Your task to perform on an android device: Open Google Maps and go to "Timeline" Image 0: 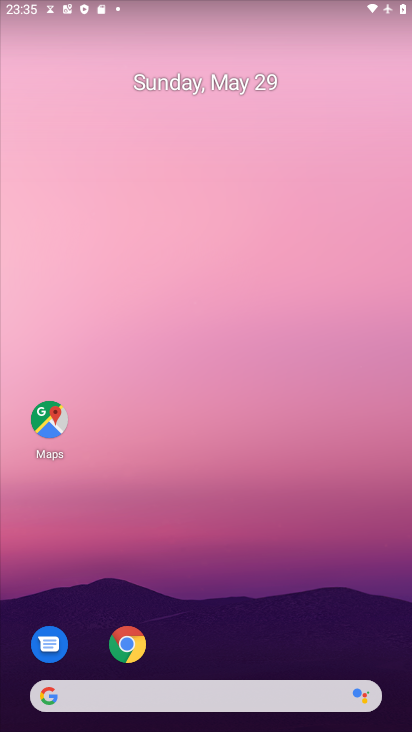
Step 0: drag from (227, 620) to (250, 300)
Your task to perform on an android device: Open Google Maps and go to "Timeline" Image 1: 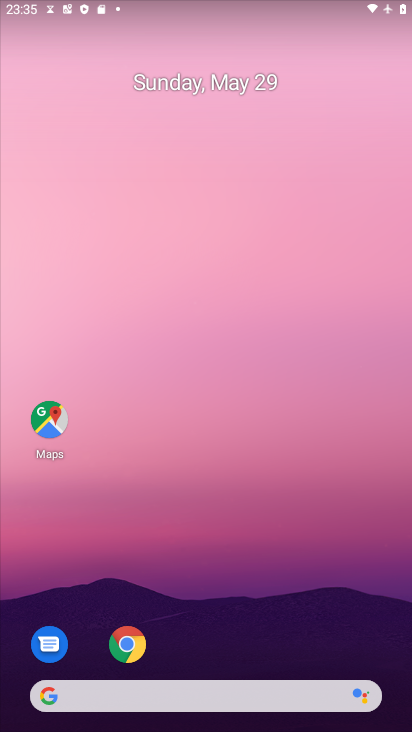
Step 1: click (122, 644)
Your task to perform on an android device: Open Google Maps and go to "Timeline" Image 2: 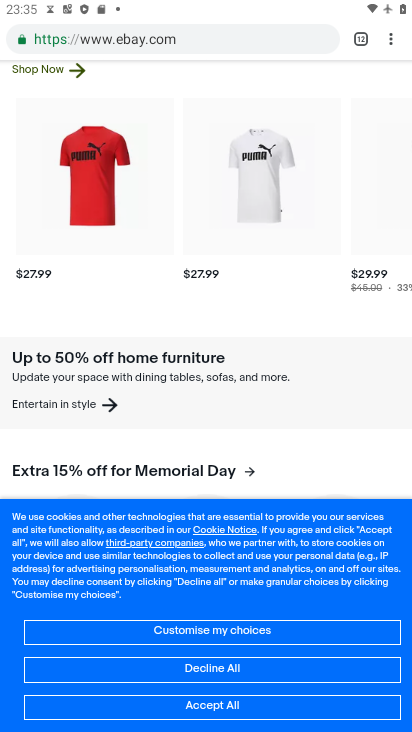
Step 2: click (386, 40)
Your task to perform on an android device: Open Google Maps and go to "Timeline" Image 3: 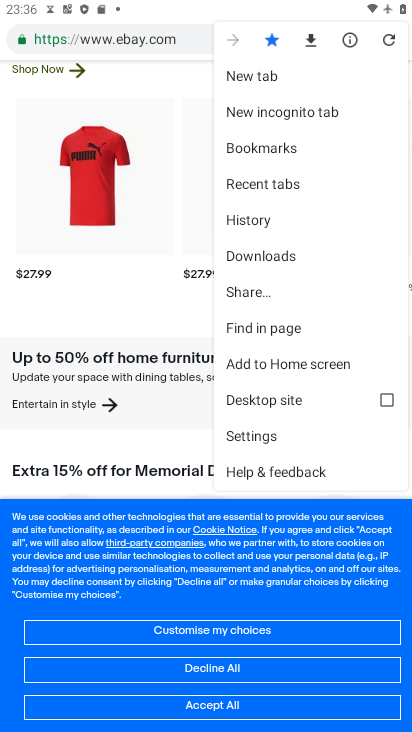
Step 3: click (178, 169)
Your task to perform on an android device: Open Google Maps and go to "Timeline" Image 4: 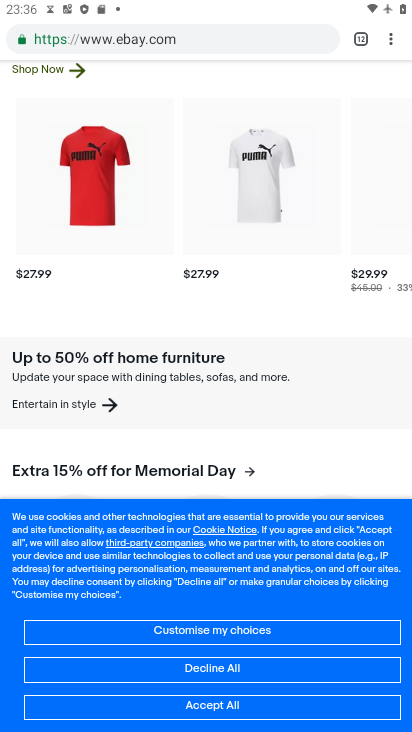
Step 4: click (392, 39)
Your task to perform on an android device: Open Google Maps and go to "Timeline" Image 5: 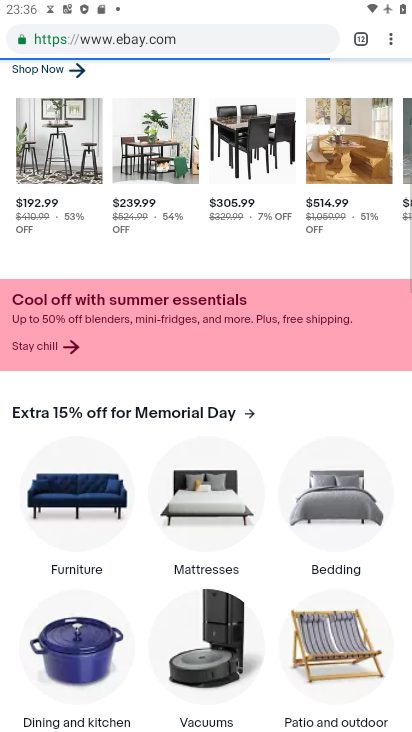
Step 5: click (392, 39)
Your task to perform on an android device: Open Google Maps and go to "Timeline" Image 6: 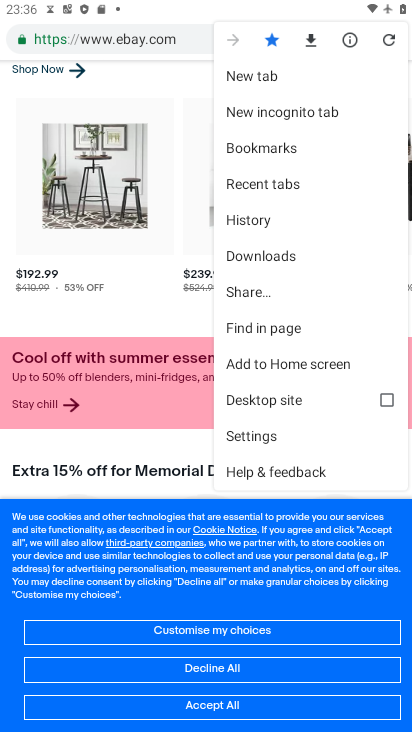
Step 6: click (282, 440)
Your task to perform on an android device: Open Google Maps and go to "Timeline" Image 7: 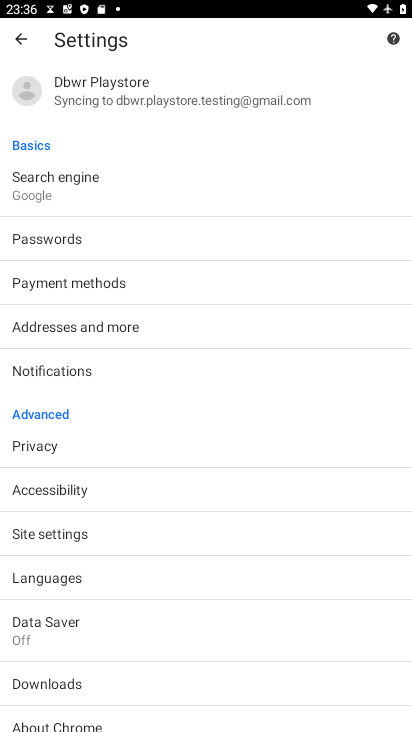
Step 7: press home button
Your task to perform on an android device: Open Google Maps and go to "Timeline" Image 8: 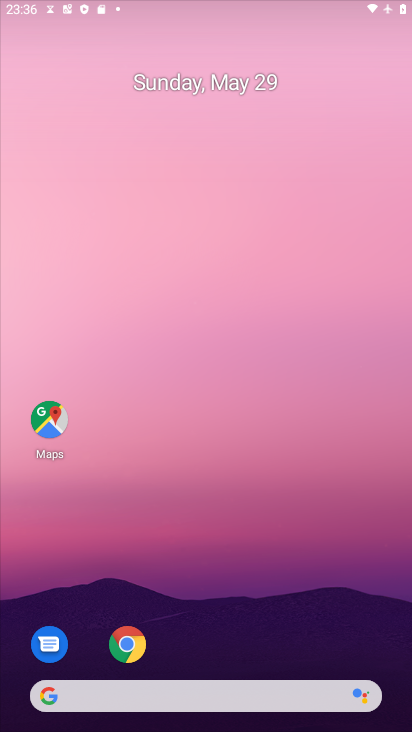
Step 8: drag from (232, 510) to (258, 164)
Your task to perform on an android device: Open Google Maps and go to "Timeline" Image 9: 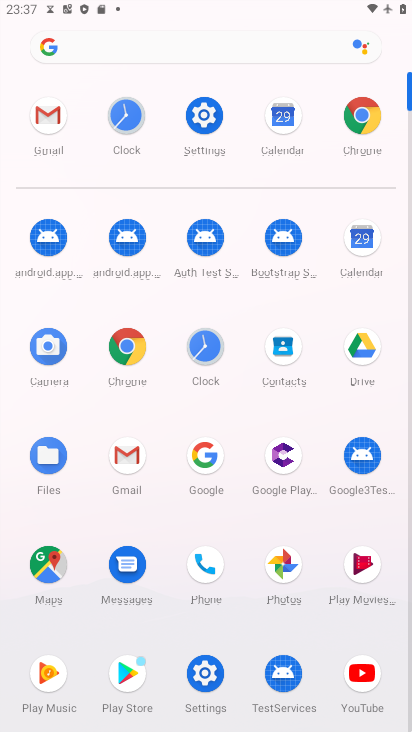
Step 9: click (127, 350)
Your task to perform on an android device: Open Google Maps and go to "Timeline" Image 10: 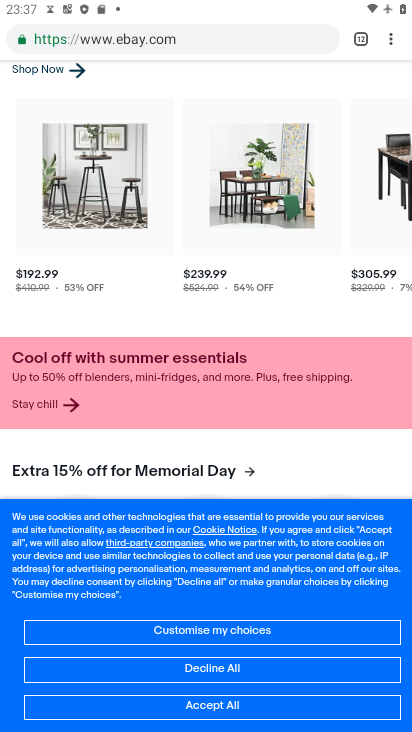
Step 10: task complete